Your task to perform on an android device: Go to accessibility settings Image 0: 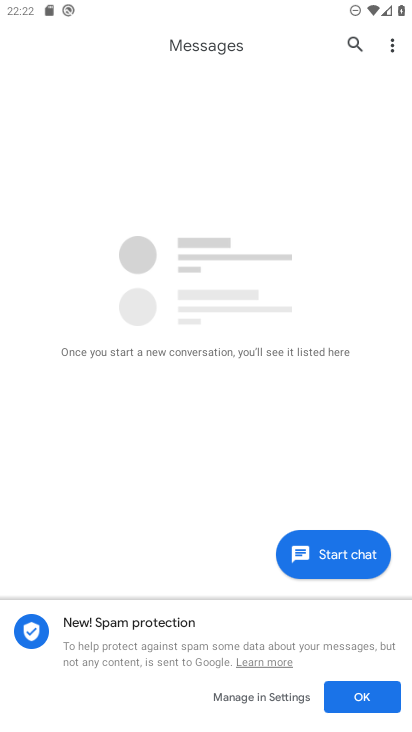
Step 0: press home button
Your task to perform on an android device: Go to accessibility settings Image 1: 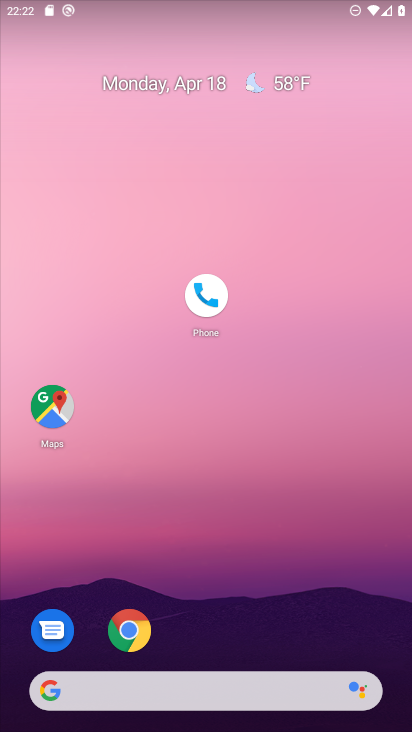
Step 1: drag from (250, 648) to (280, 139)
Your task to perform on an android device: Go to accessibility settings Image 2: 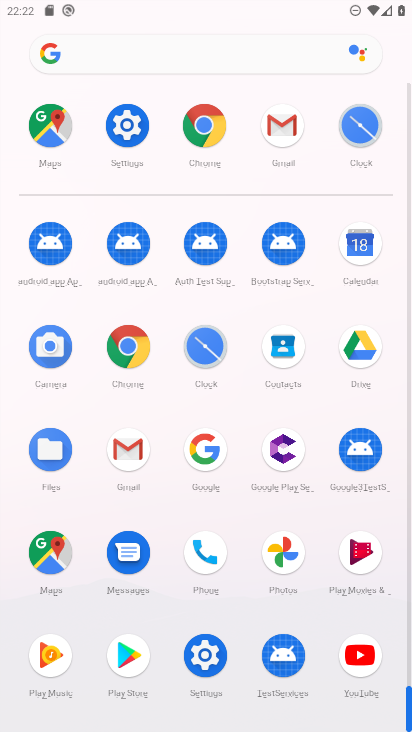
Step 2: click (128, 141)
Your task to perform on an android device: Go to accessibility settings Image 3: 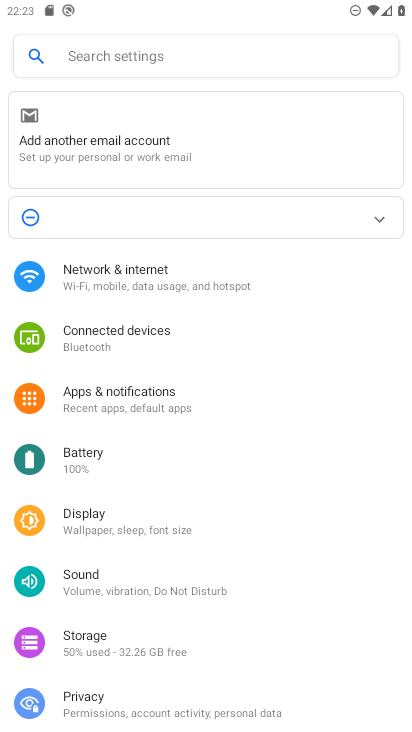
Step 3: drag from (201, 582) to (273, 156)
Your task to perform on an android device: Go to accessibility settings Image 4: 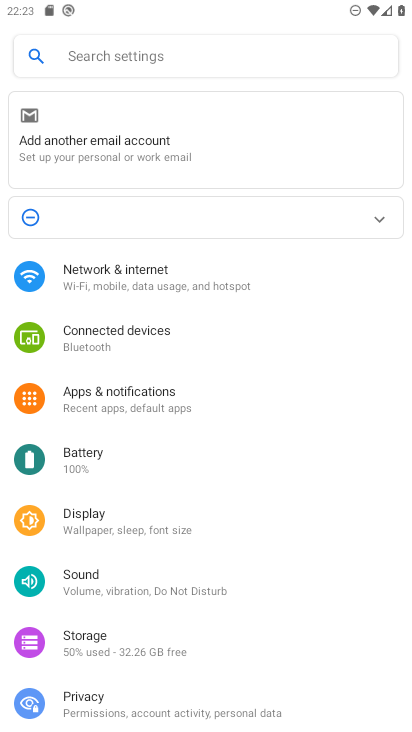
Step 4: drag from (169, 694) to (214, 328)
Your task to perform on an android device: Go to accessibility settings Image 5: 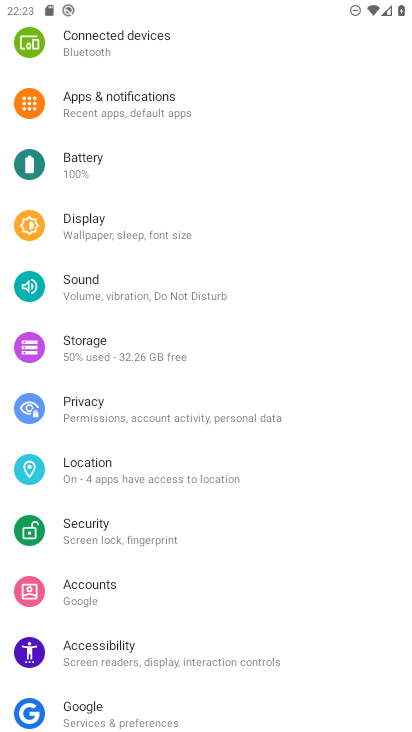
Step 5: drag from (296, 582) to (363, 131)
Your task to perform on an android device: Go to accessibility settings Image 6: 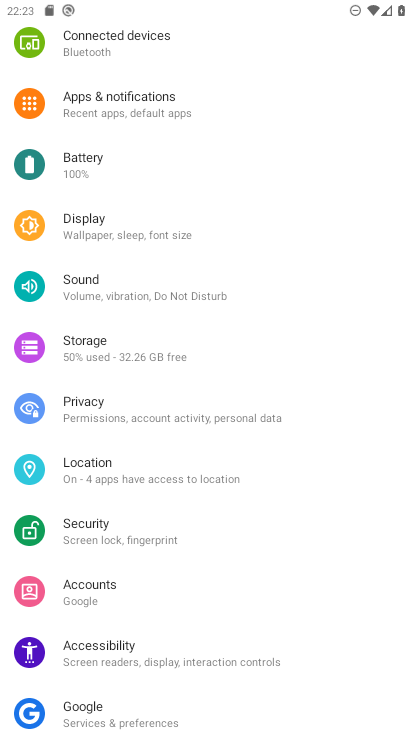
Step 6: click (261, 670)
Your task to perform on an android device: Go to accessibility settings Image 7: 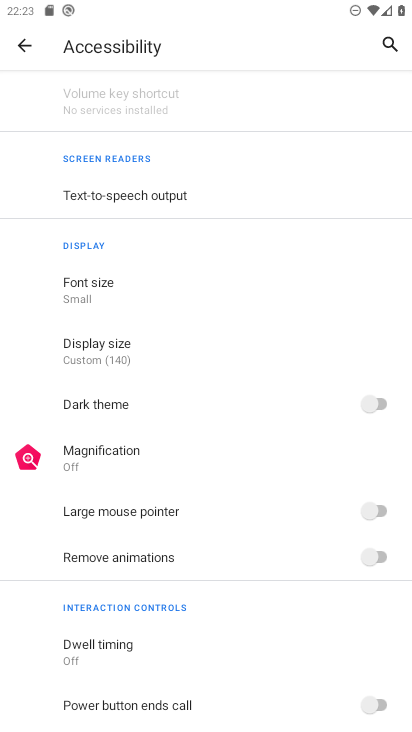
Step 7: task complete